Your task to perform on an android device: turn on the 12-hour format for clock Image 0: 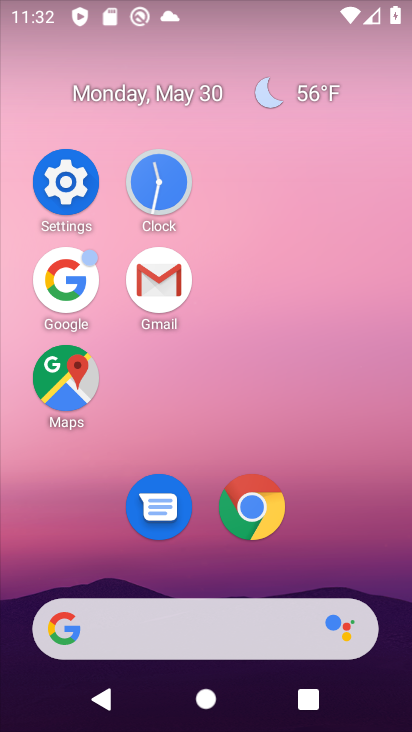
Step 0: click (182, 202)
Your task to perform on an android device: turn on the 12-hour format for clock Image 1: 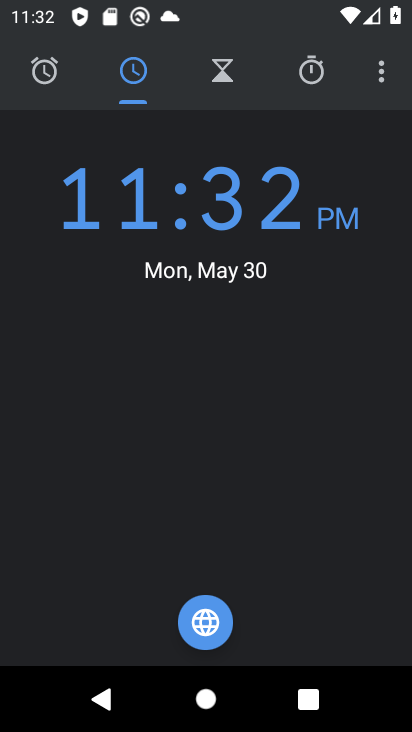
Step 1: click (389, 62)
Your task to perform on an android device: turn on the 12-hour format for clock Image 2: 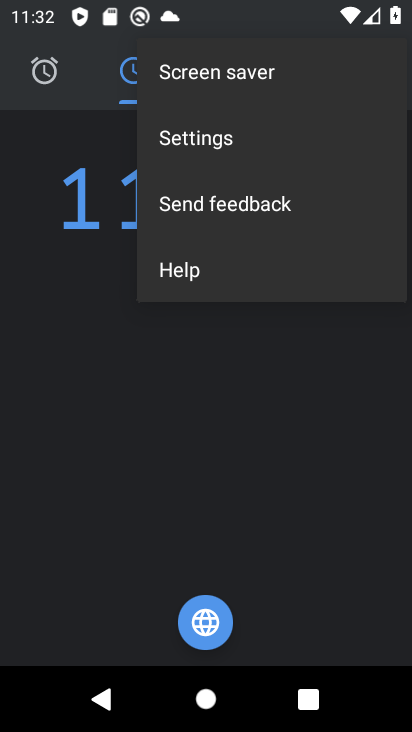
Step 2: click (194, 144)
Your task to perform on an android device: turn on the 12-hour format for clock Image 3: 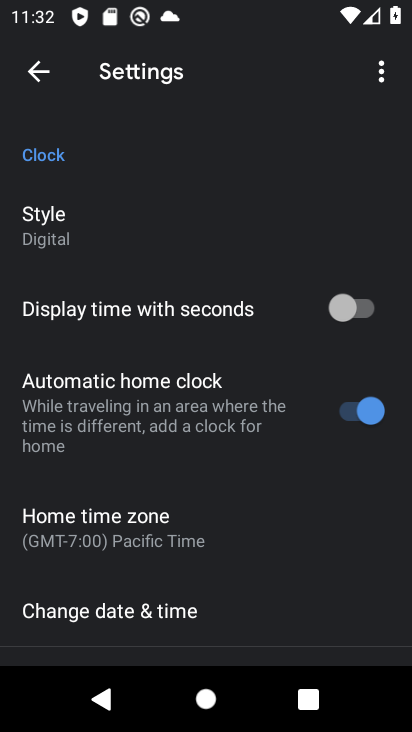
Step 3: drag from (247, 545) to (190, 155)
Your task to perform on an android device: turn on the 12-hour format for clock Image 4: 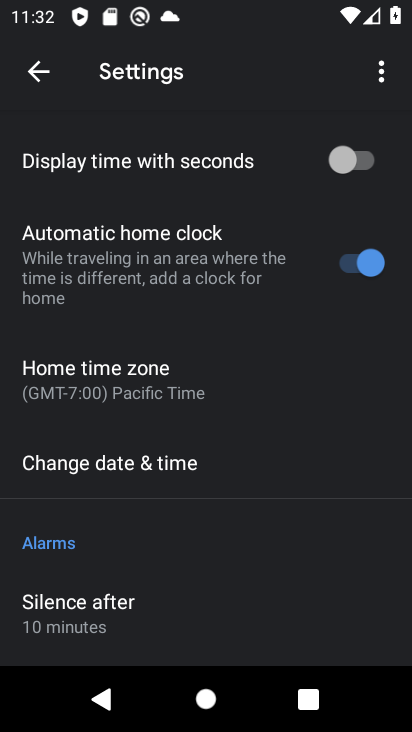
Step 4: click (134, 455)
Your task to perform on an android device: turn on the 12-hour format for clock Image 5: 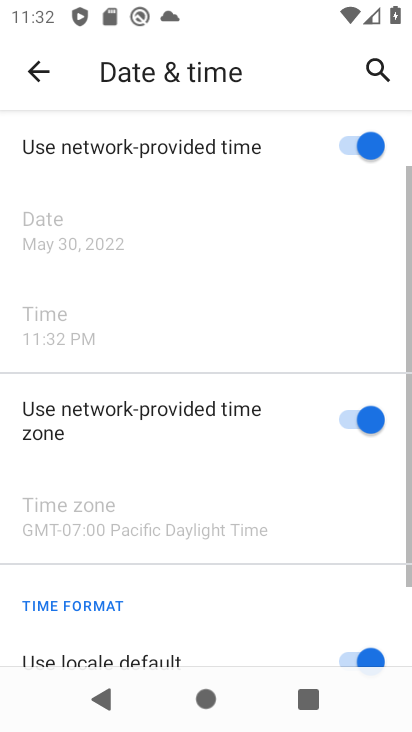
Step 5: task complete